Your task to perform on an android device: open wifi settings Image 0: 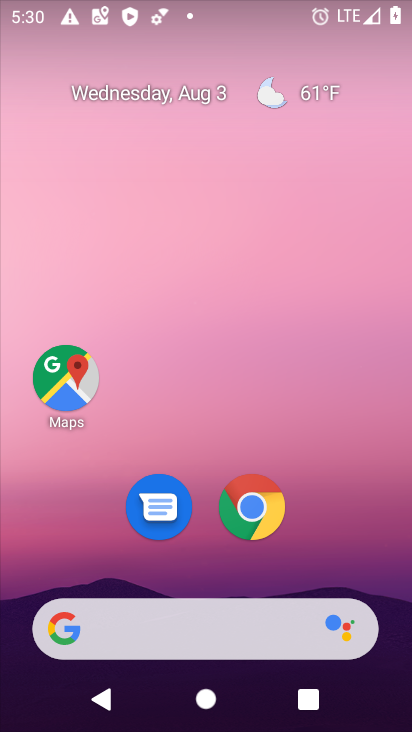
Step 0: drag from (332, 568) to (265, 56)
Your task to perform on an android device: open wifi settings Image 1: 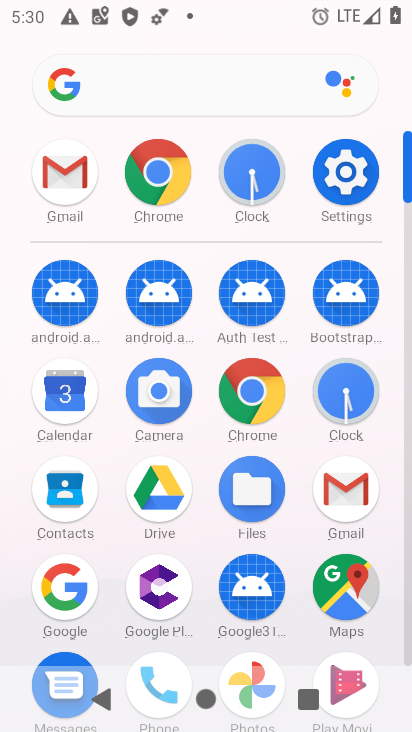
Step 1: click (356, 192)
Your task to perform on an android device: open wifi settings Image 2: 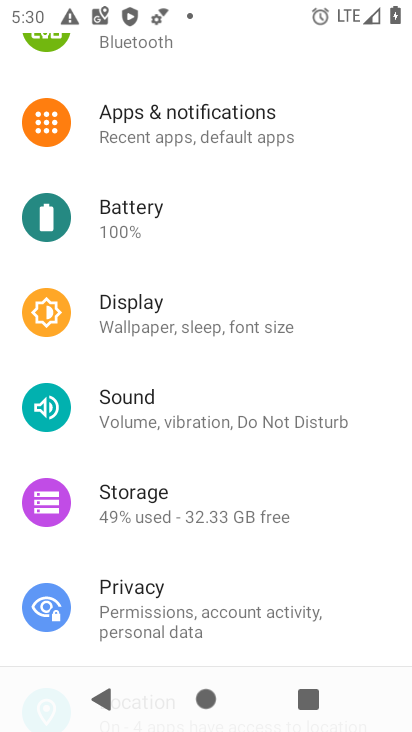
Step 2: drag from (256, 82) to (284, 524)
Your task to perform on an android device: open wifi settings Image 3: 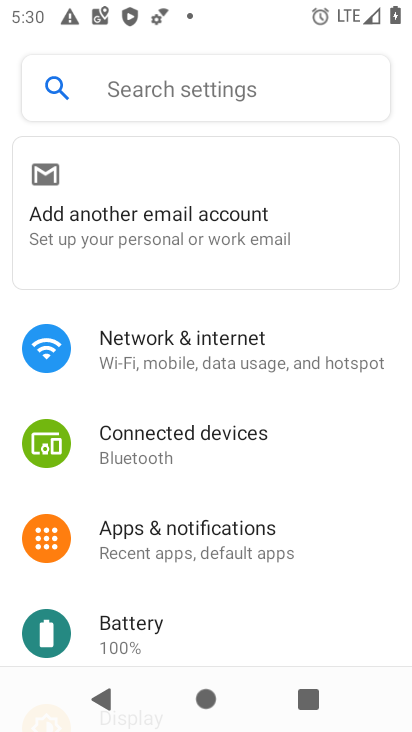
Step 3: click (198, 345)
Your task to perform on an android device: open wifi settings Image 4: 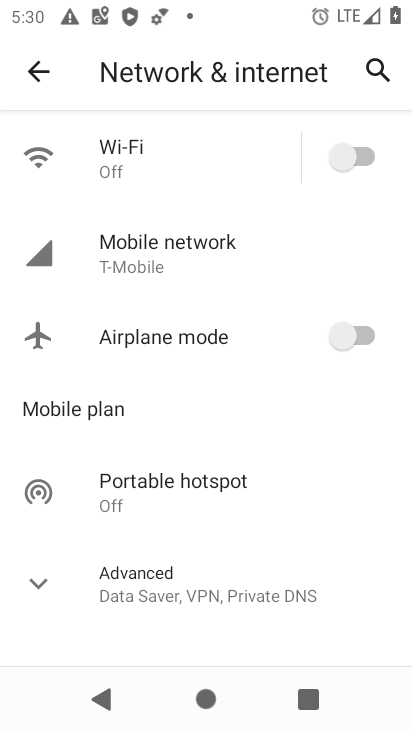
Step 4: click (343, 165)
Your task to perform on an android device: open wifi settings Image 5: 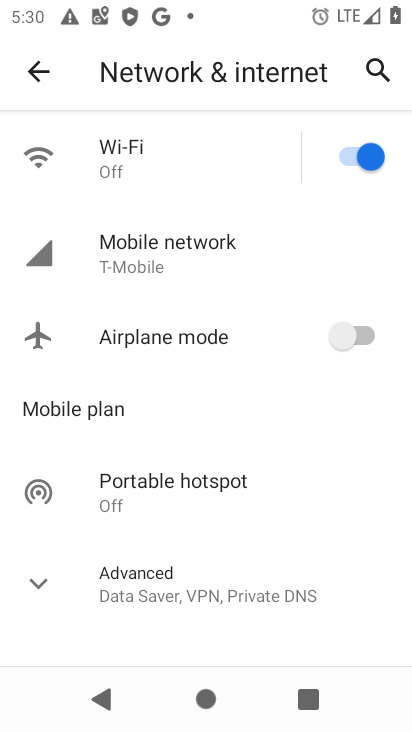
Step 5: click (147, 145)
Your task to perform on an android device: open wifi settings Image 6: 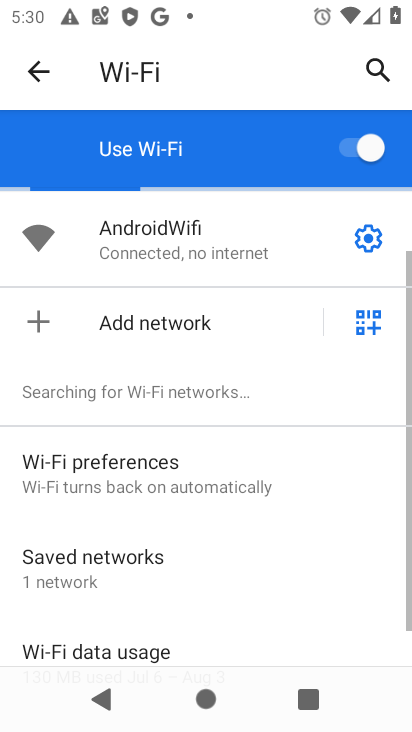
Step 6: click (358, 231)
Your task to perform on an android device: open wifi settings Image 7: 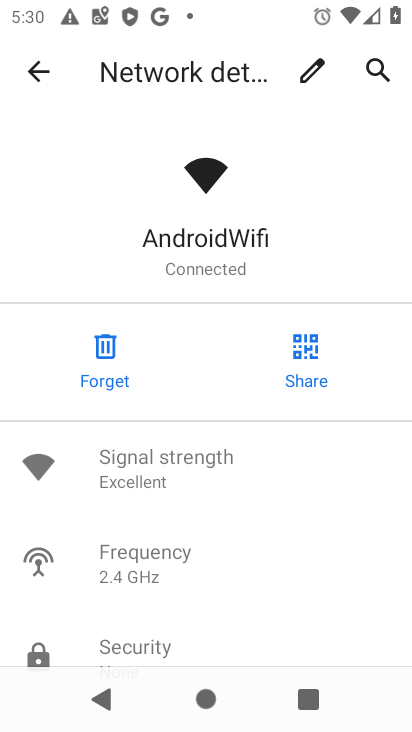
Step 7: task complete